Your task to perform on an android device: Go to privacy settings Image 0: 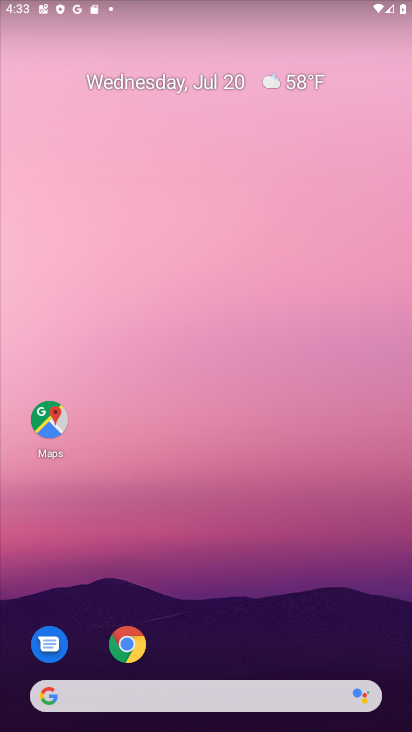
Step 0: press home button
Your task to perform on an android device: Go to privacy settings Image 1: 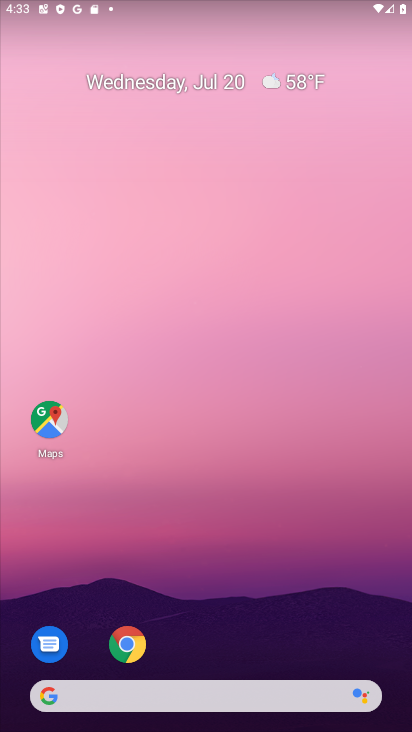
Step 1: press home button
Your task to perform on an android device: Go to privacy settings Image 2: 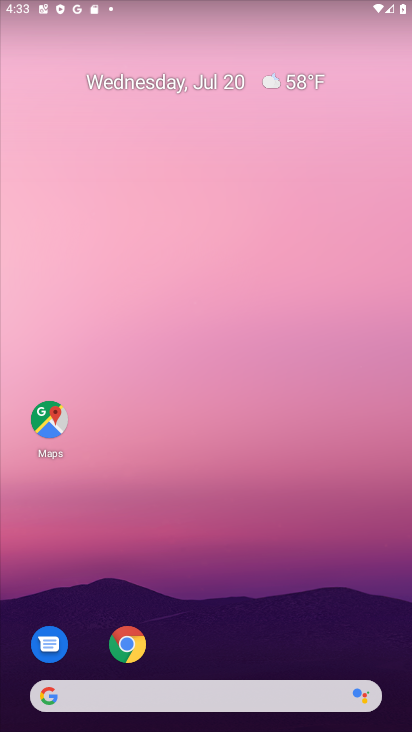
Step 2: drag from (317, 578) to (334, 1)
Your task to perform on an android device: Go to privacy settings Image 3: 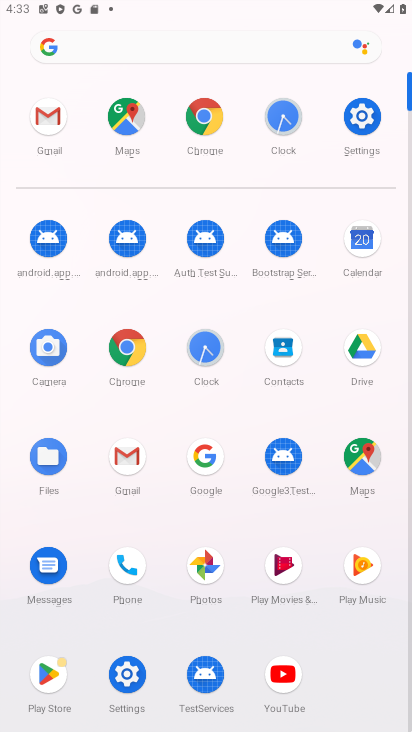
Step 3: click (360, 108)
Your task to perform on an android device: Go to privacy settings Image 4: 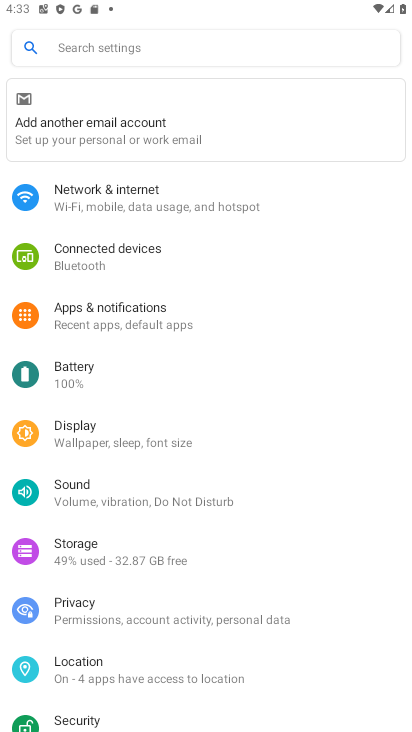
Step 4: click (91, 608)
Your task to perform on an android device: Go to privacy settings Image 5: 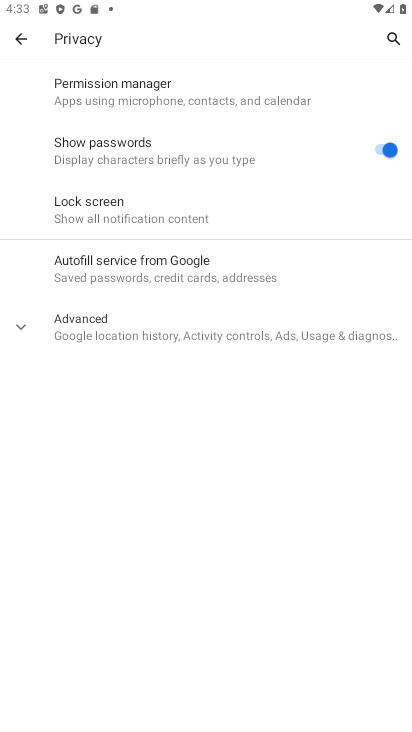
Step 5: task complete